Your task to perform on an android device: Is it going to rain this weekend? Image 0: 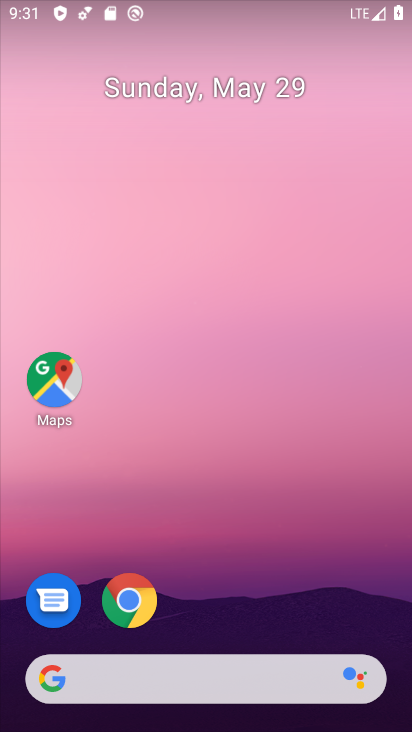
Step 0: click (133, 591)
Your task to perform on an android device: Is it going to rain this weekend? Image 1: 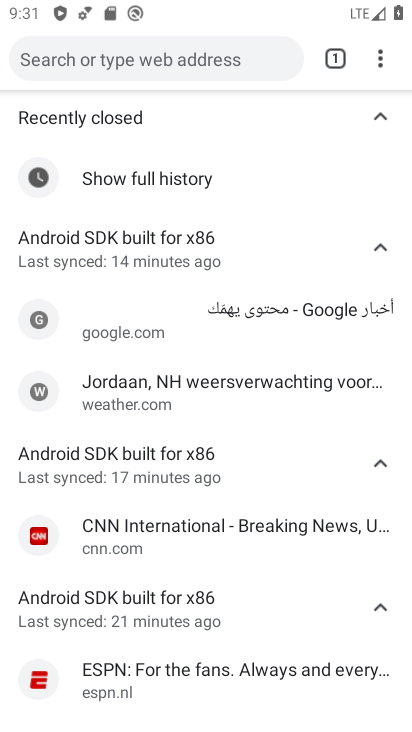
Step 1: press home button
Your task to perform on an android device: Is it going to rain this weekend? Image 2: 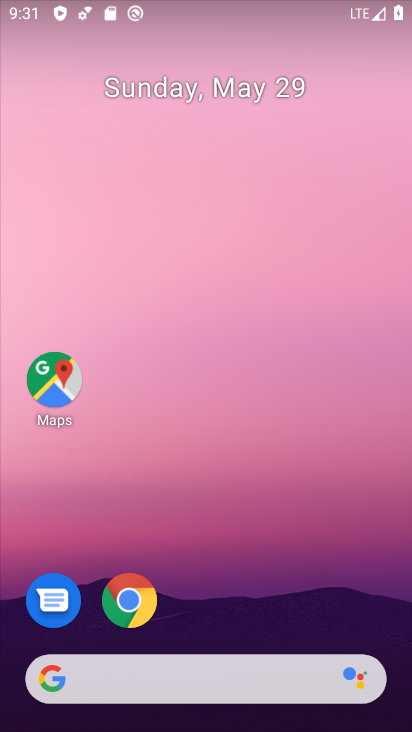
Step 2: click (138, 603)
Your task to perform on an android device: Is it going to rain this weekend? Image 3: 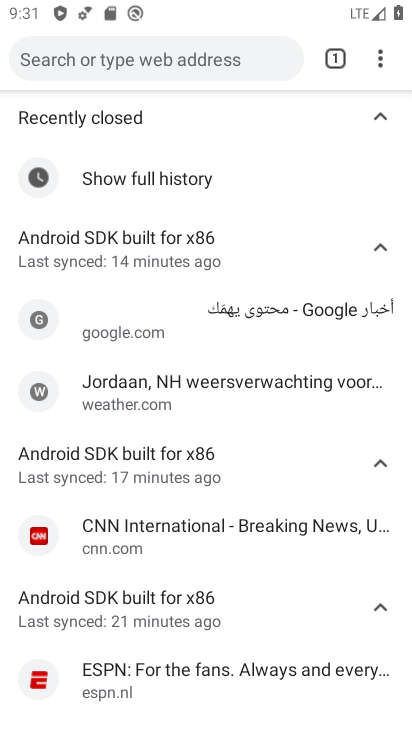
Step 3: click (236, 56)
Your task to perform on an android device: Is it going to rain this weekend? Image 4: 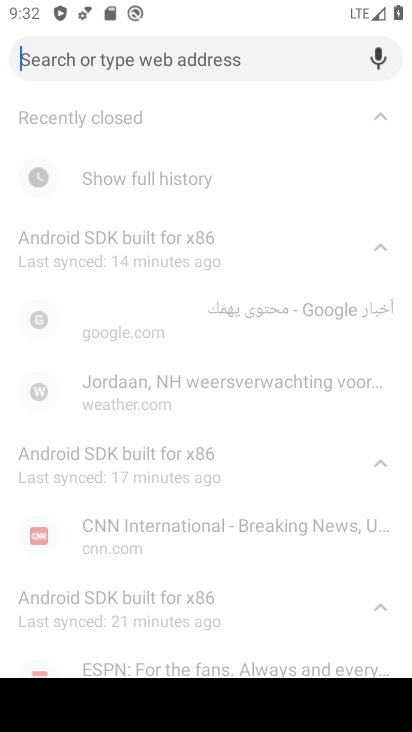
Step 4: type "Is it going to rain this weekend?"
Your task to perform on an android device: Is it going to rain this weekend? Image 5: 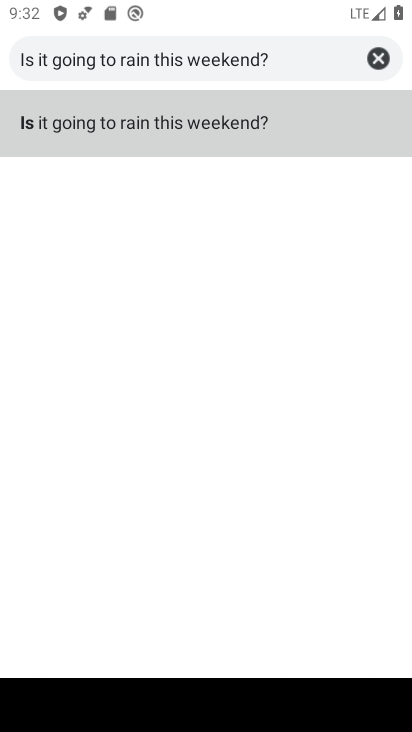
Step 5: click (124, 127)
Your task to perform on an android device: Is it going to rain this weekend? Image 6: 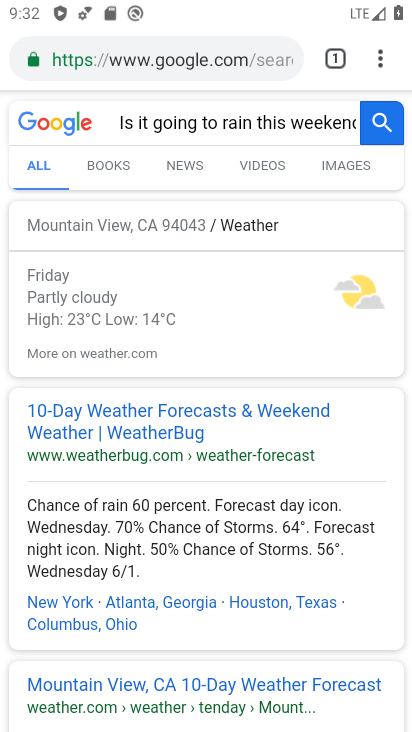
Step 6: task complete